Your task to perform on an android device: Go to internet settings Image 0: 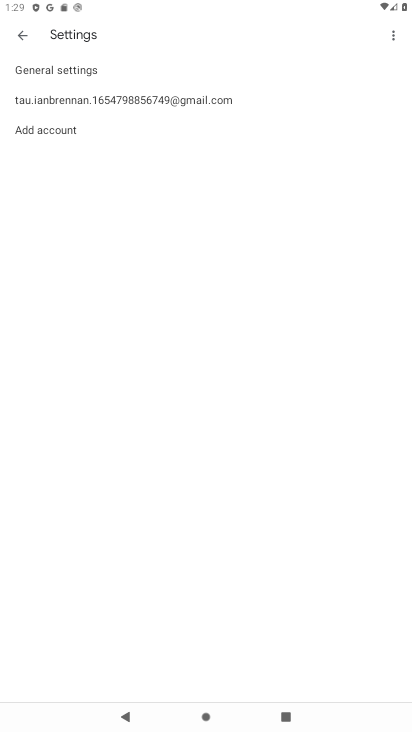
Step 0: press home button
Your task to perform on an android device: Go to internet settings Image 1: 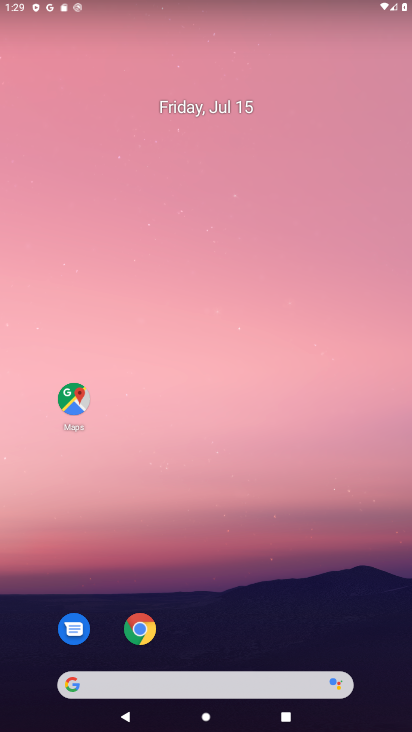
Step 1: drag from (187, 553) to (193, 225)
Your task to perform on an android device: Go to internet settings Image 2: 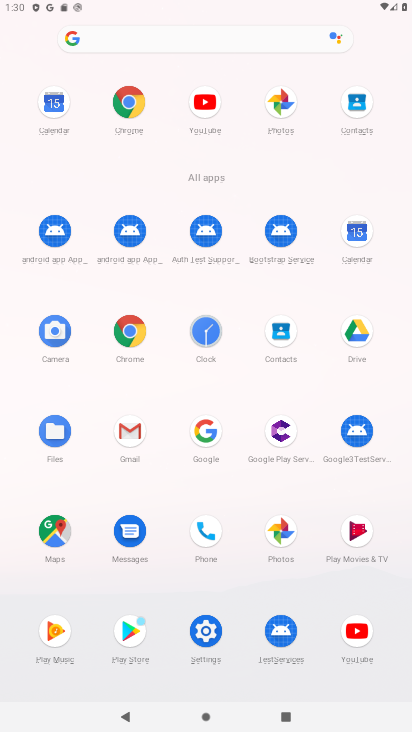
Step 2: click (207, 648)
Your task to perform on an android device: Go to internet settings Image 3: 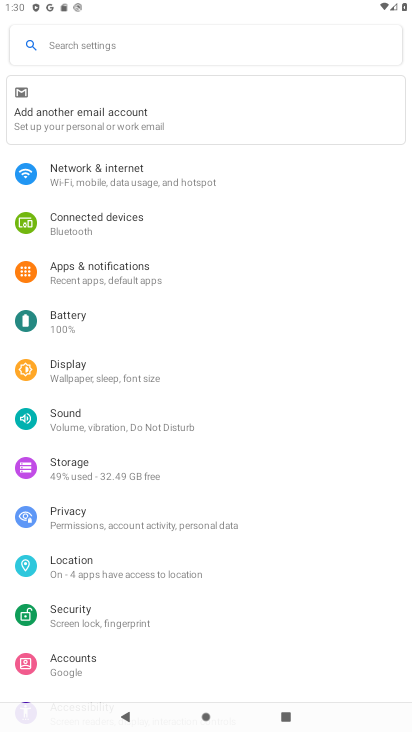
Step 3: click (95, 178)
Your task to perform on an android device: Go to internet settings Image 4: 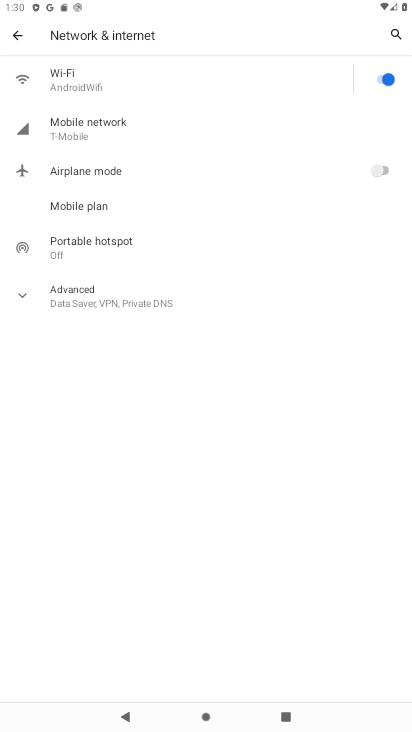
Step 4: task complete